Your task to perform on an android device: move an email to a new category in the gmail app Image 0: 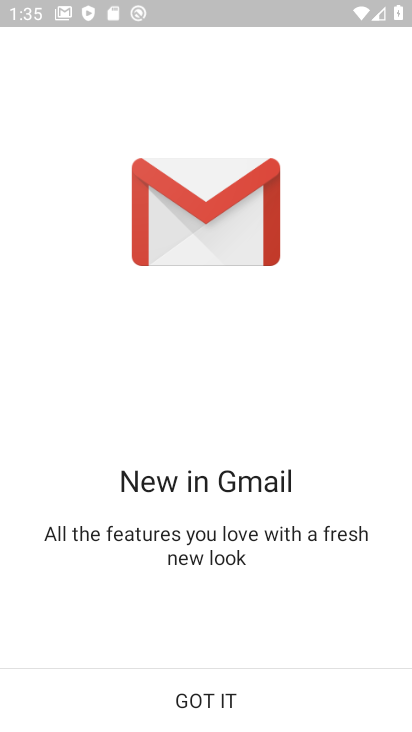
Step 0: click (214, 696)
Your task to perform on an android device: move an email to a new category in the gmail app Image 1: 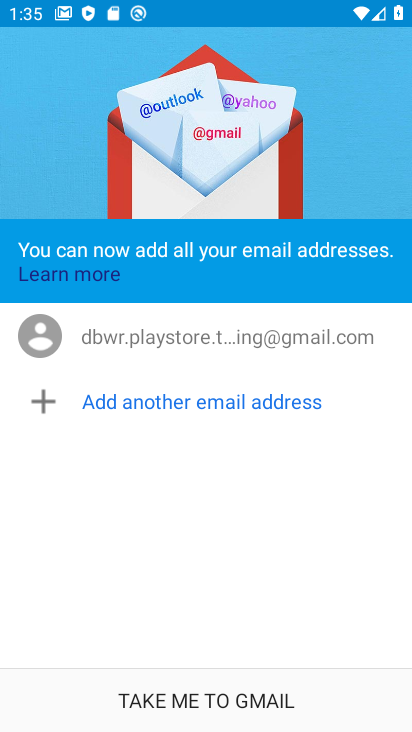
Step 1: click (218, 685)
Your task to perform on an android device: move an email to a new category in the gmail app Image 2: 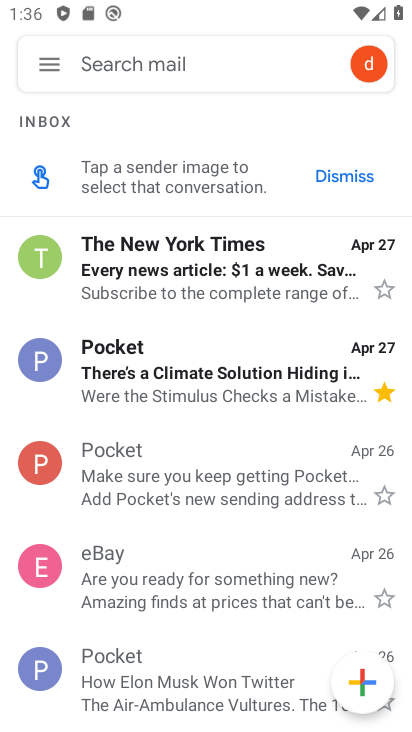
Step 2: click (171, 272)
Your task to perform on an android device: move an email to a new category in the gmail app Image 3: 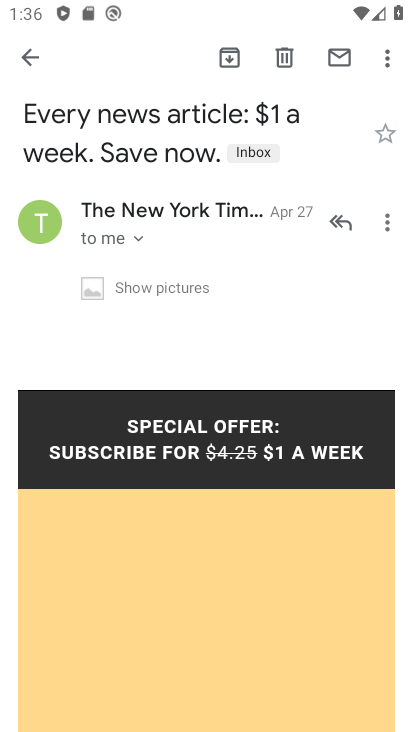
Step 3: click (383, 56)
Your task to perform on an android device: move an email to a new category in the gmail app Image 4: 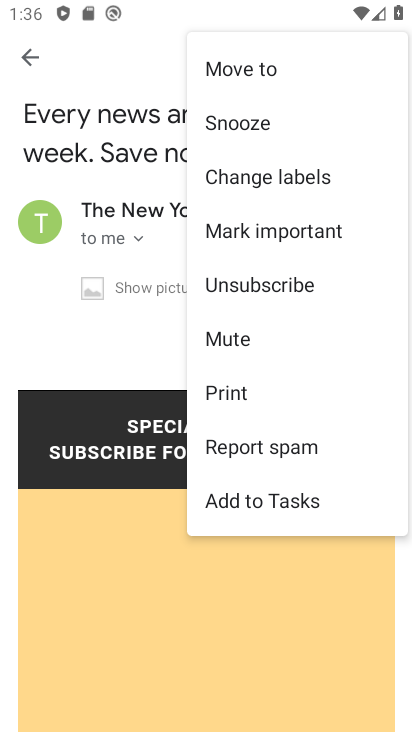
Step 4: click (265, 63)
Your task to perform on an android device: move an email to a new category in the gmail app Image 5: 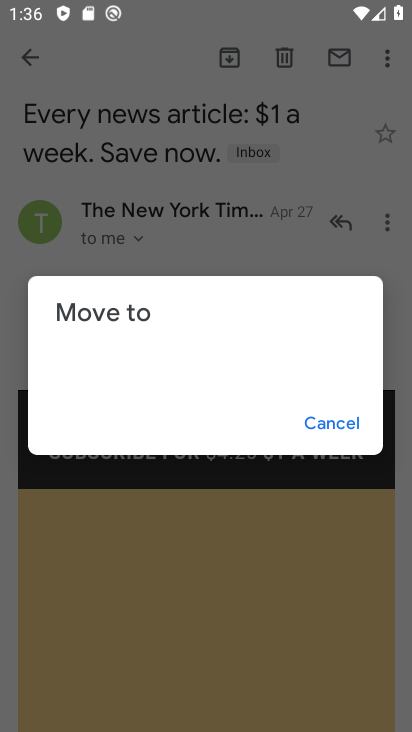
Step 5: click (263, 255)
Your task to perform on an android device: move an email to a new category in the gmail app Image 6: 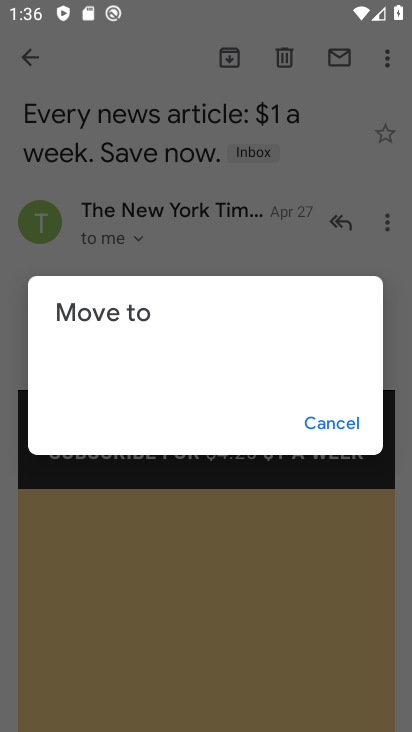
Step 6: click (329, 421)
Your task to perform on an android device: move an email to a new category in the gmail app Image 7: 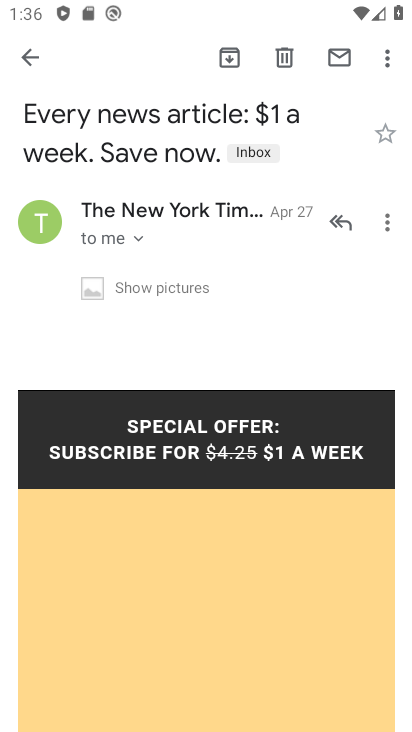
Step 7: click (253, 156)
Your task to perform on an android device: move an email to a new category in the gmail app Image 8: 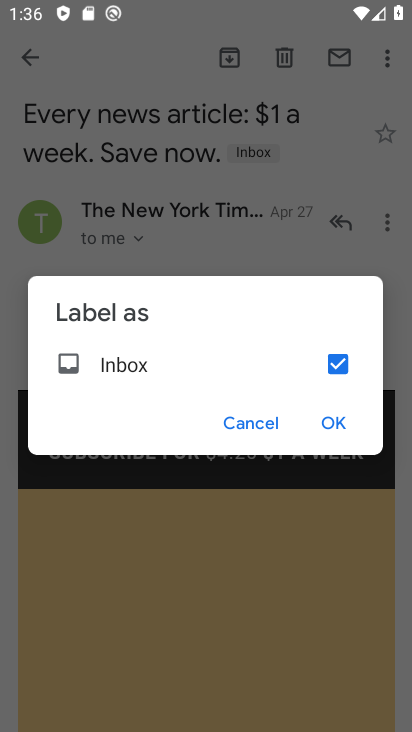
Step 8: click (339, 356)
Your task to perform on an android device: move an email to a new category in the gmail app Image 9: 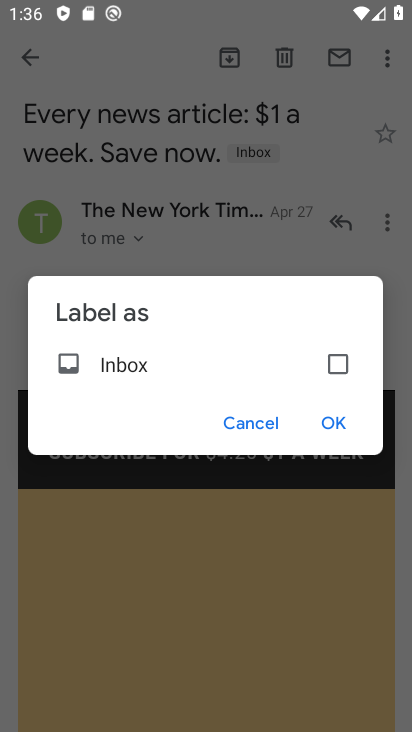
Step 9: click (331, 426)
Your task to perform on an android device: move an email to a new category in the gmail app Image 10: 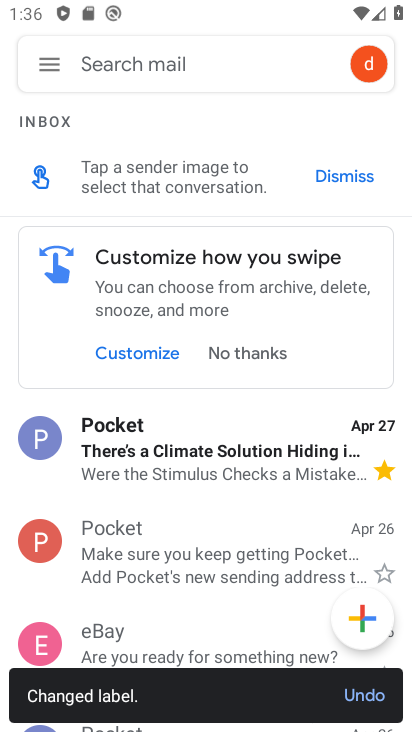
Step 10: task complete